Your task to perform on an android device: Toggle the flashlight Image 0: 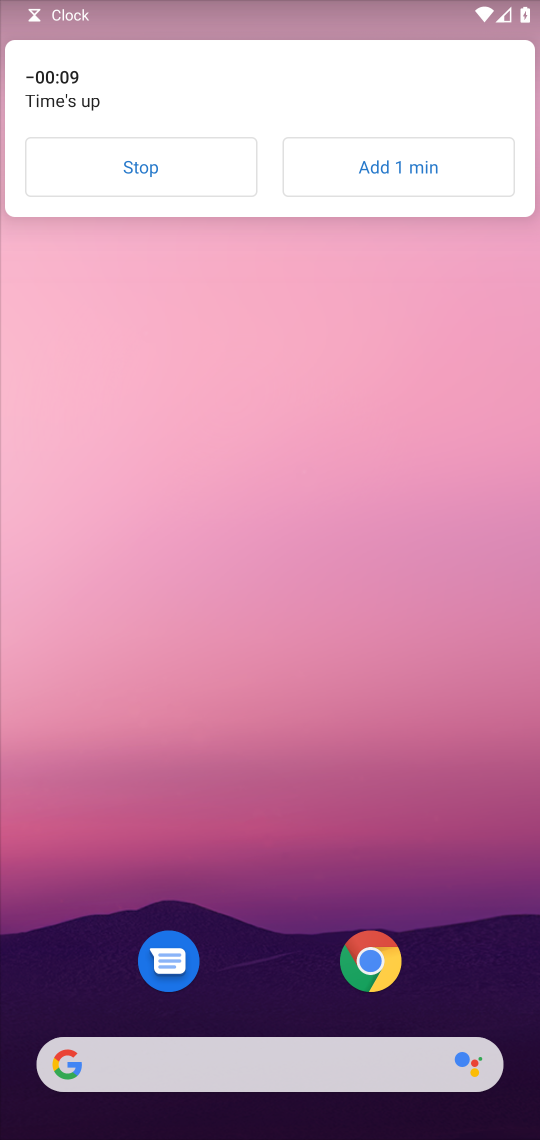
Step 0: click (227, 156)
Your task to perform on an android device: Toggle the flashlight Image 1: 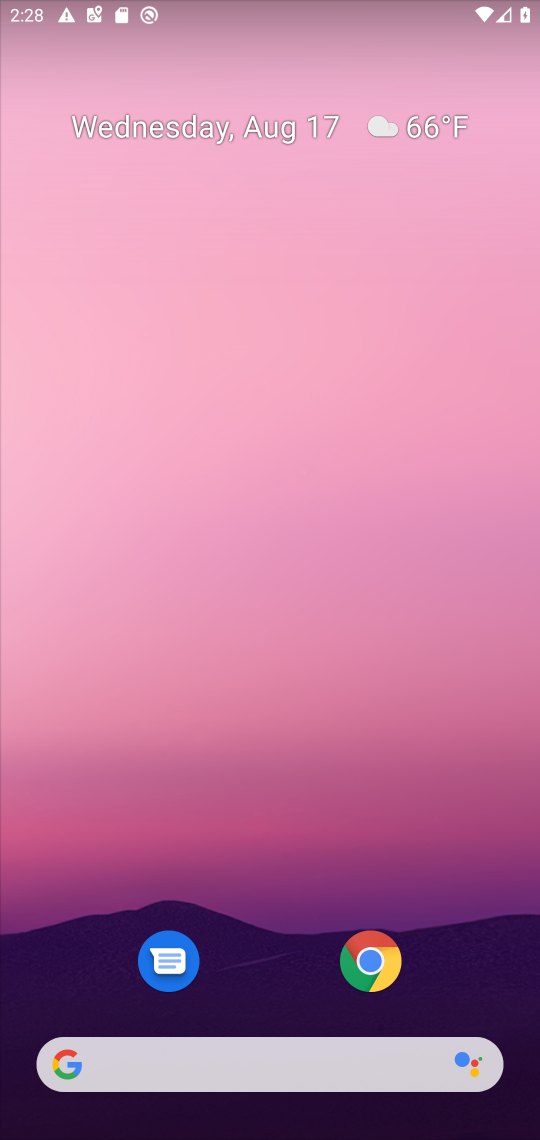
Step 1: click (449, 123)
Your task to perform on an android device: Toggle the flashlight Image 2: 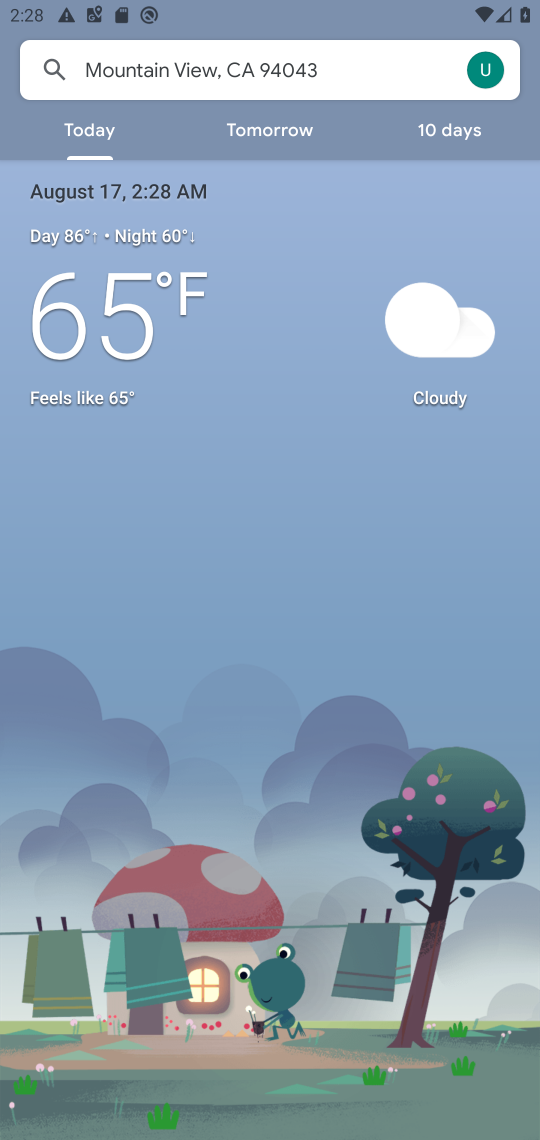
Step 2: task complete